Your task to perform on an android device: What's on my calendar today? Image 0: 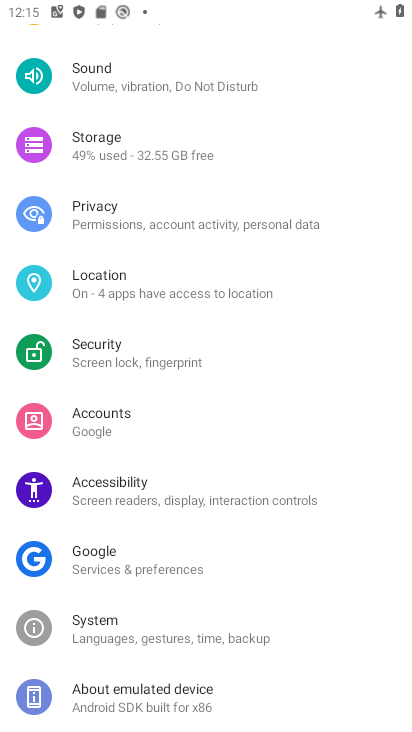
Step 0: press home button
Your task to perform on an android device: What's on my calendar today? Image 1: 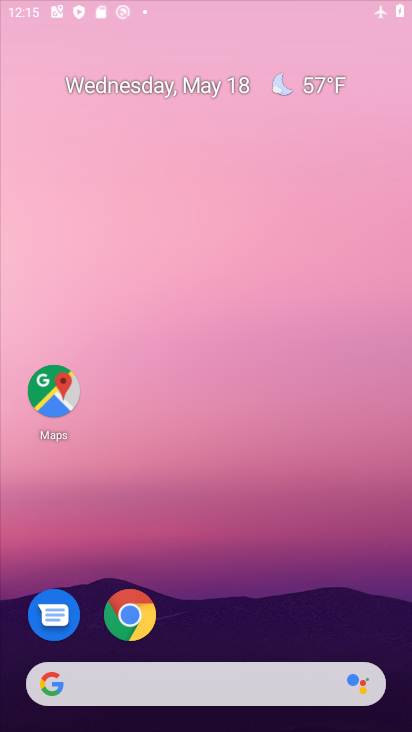
Step 1: drag from (353, 618) to (270, 13)
Your task to perform on an android device: What's on my calendar today? Image 2: 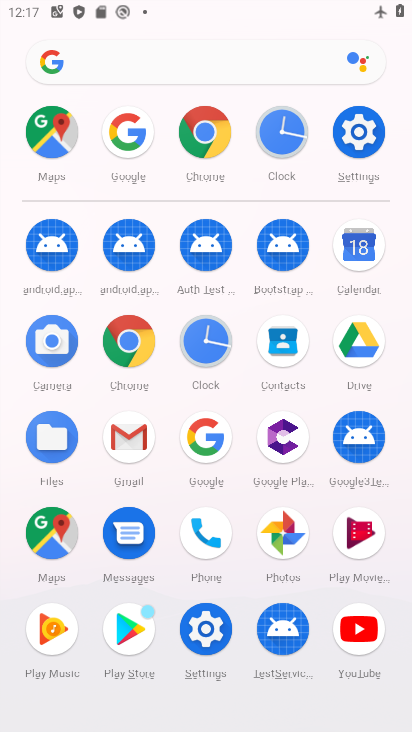
Step 2: click (356, 263)
Your task to perform on an android device: What's on my calendar today? Image 3: 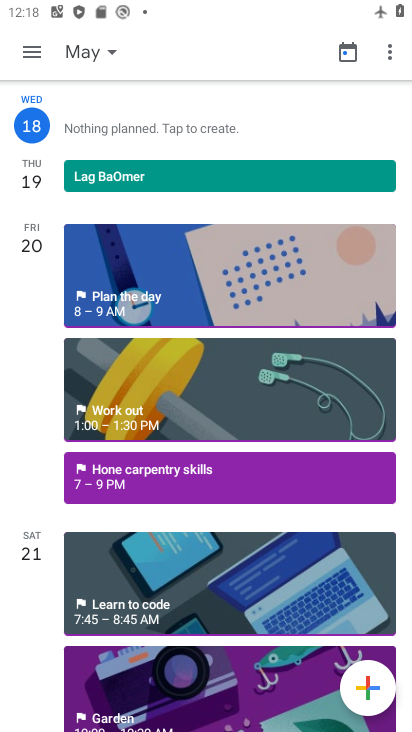
Step 3: click (77, 41)
Your task to perform on an android device: What's on my calendar today? Image 4: 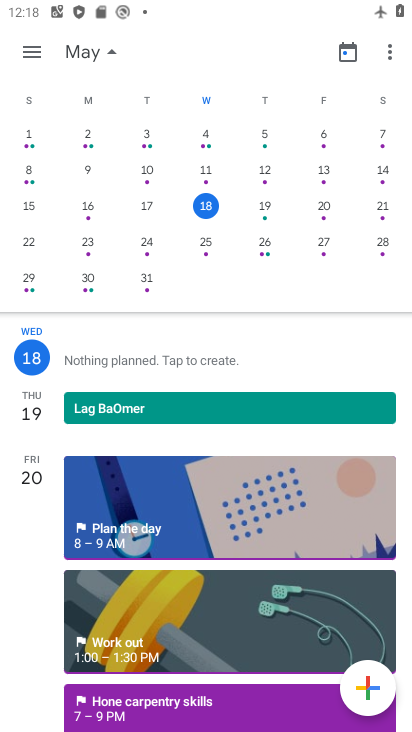
Step 4: task complete